Your task to perform on an android device: open app "Chime – Mobile Banking" Image 0: 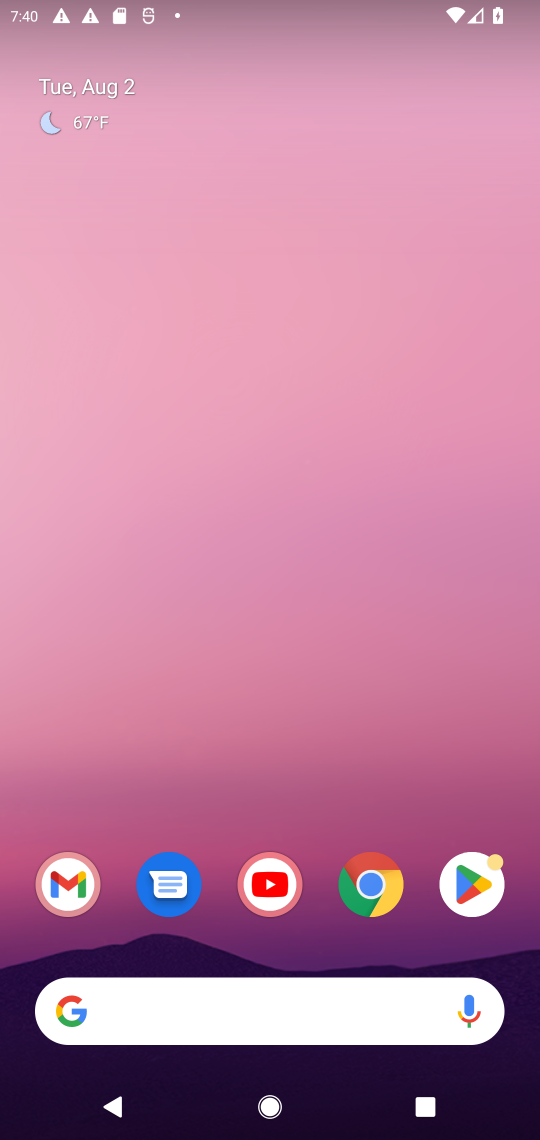
Step 0: press home button
Your task to perform on an android device: open app "Chime – Mobile Banking" Image 1: 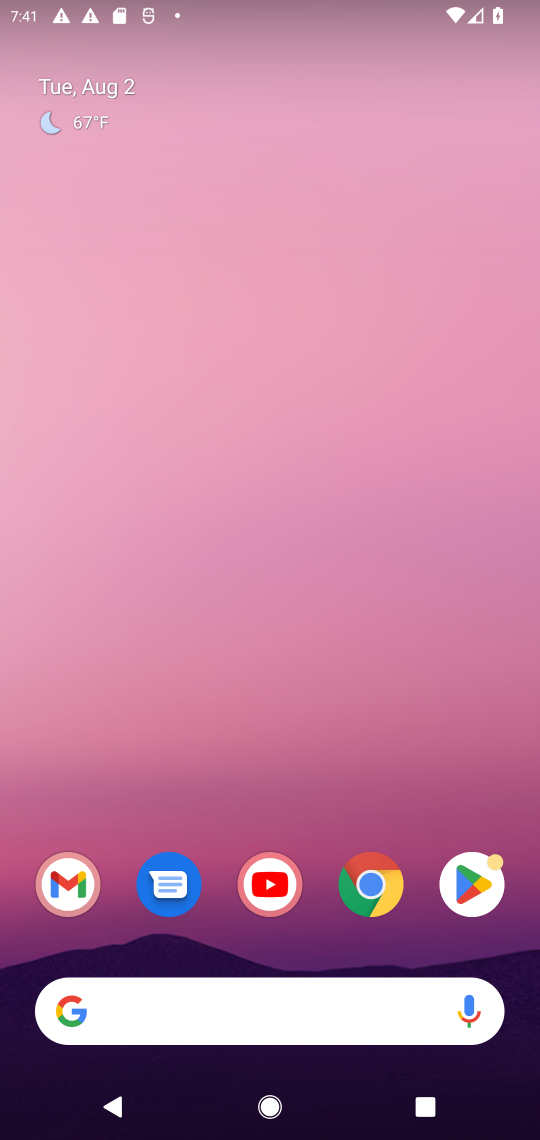
Step 1: click (469, 877)
Your task to perform on an android device: open app "Chime – Mobile Banking" Image 2: 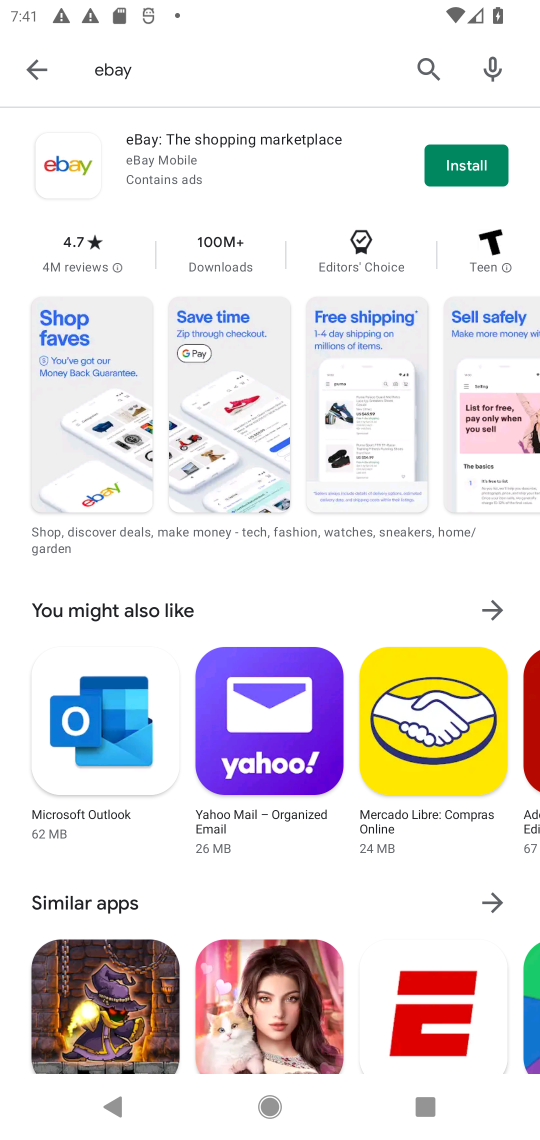
Step 2: click (412, 59)
Your task to perform on an android device: open app "Chime – Mobile Banking" Image 3: 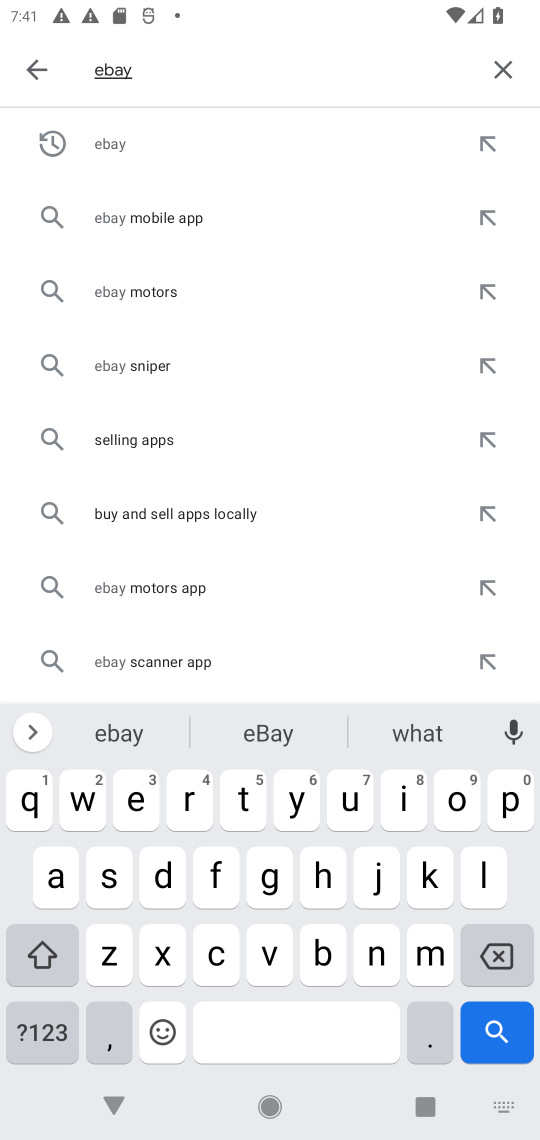
Step 3: click (497, 66)
Your task to perform on an android device: open app "Chime – Mobile Banking" Image 4: 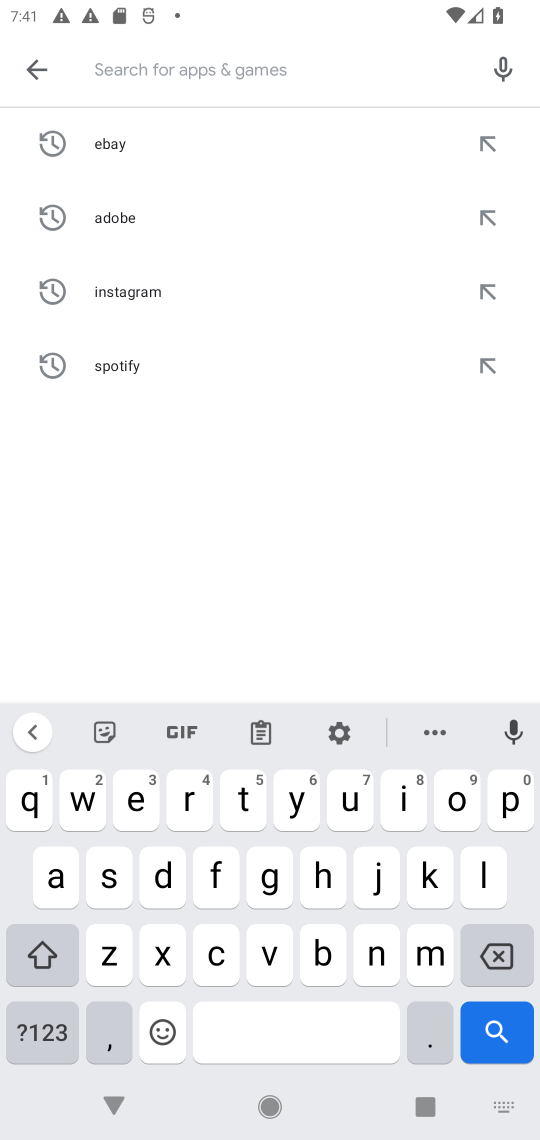
Step 4: click (220, 948)
Your task to perform on an android device: open app "Chime – Mobile Banking" Image 5: 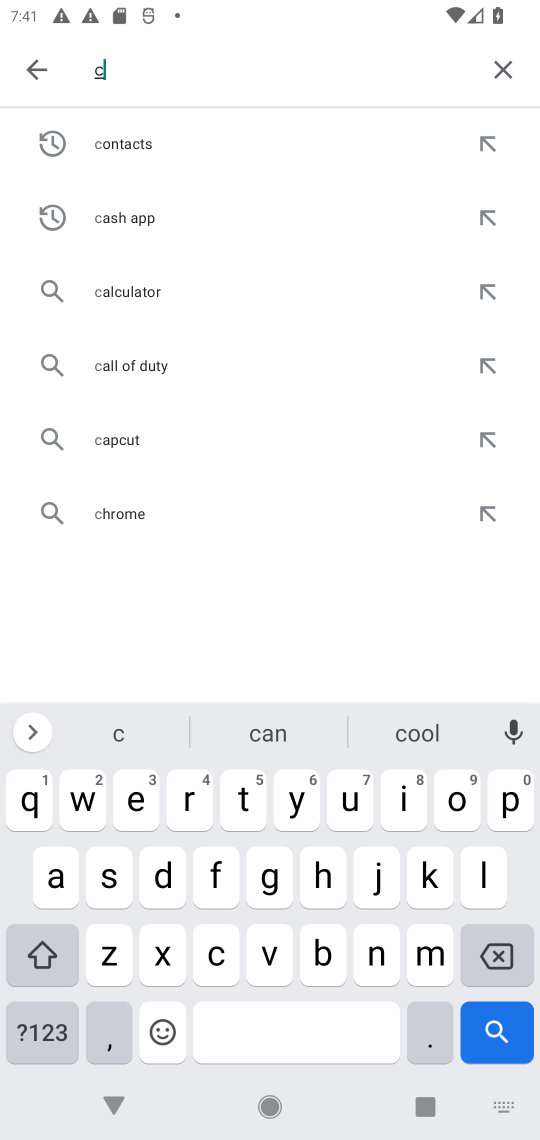
Step 5: click (328, 873)
Your task to perform on an android device: open app "Chime – Mobile Banking" Image 6: 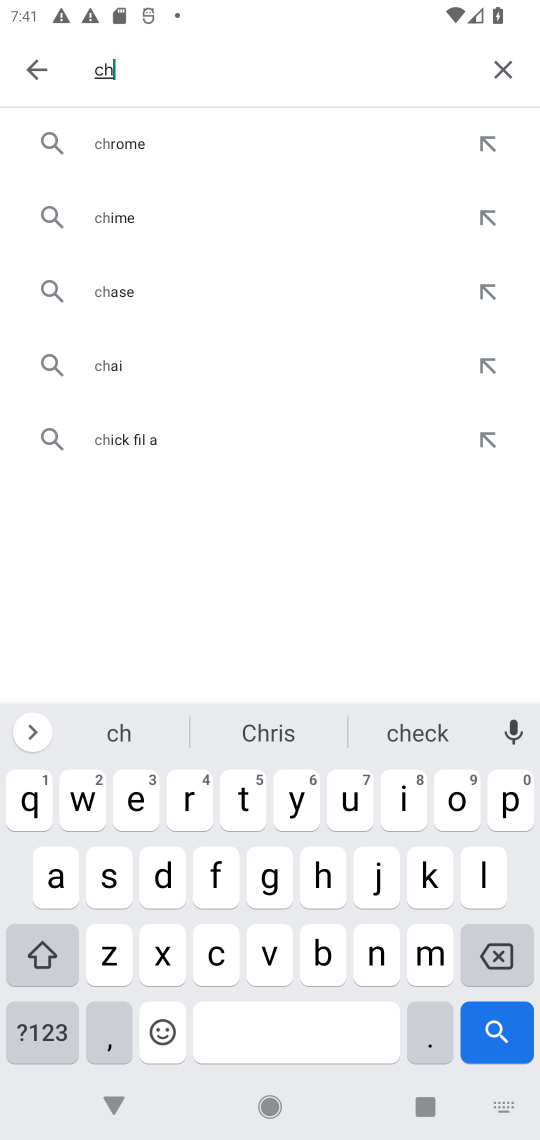
Step 6: click (403, 805)
Your task to perform on an android device: open app "Chime – Mobile Banking" Image 7: 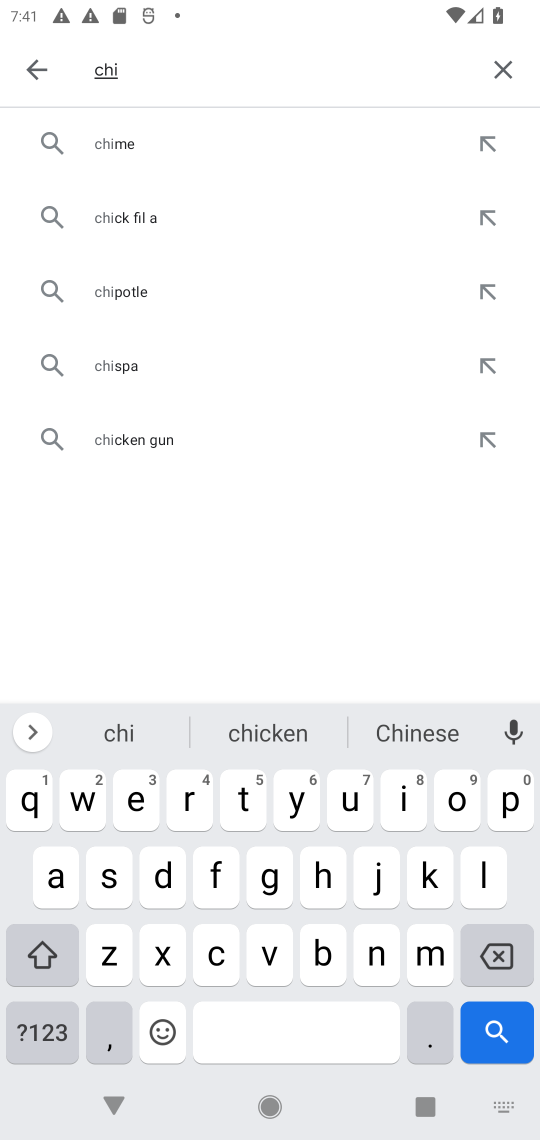
Step 7: click (160, 144)
Your task to perform on an android device: open app "Chime – Mobile Banking" Image 8: 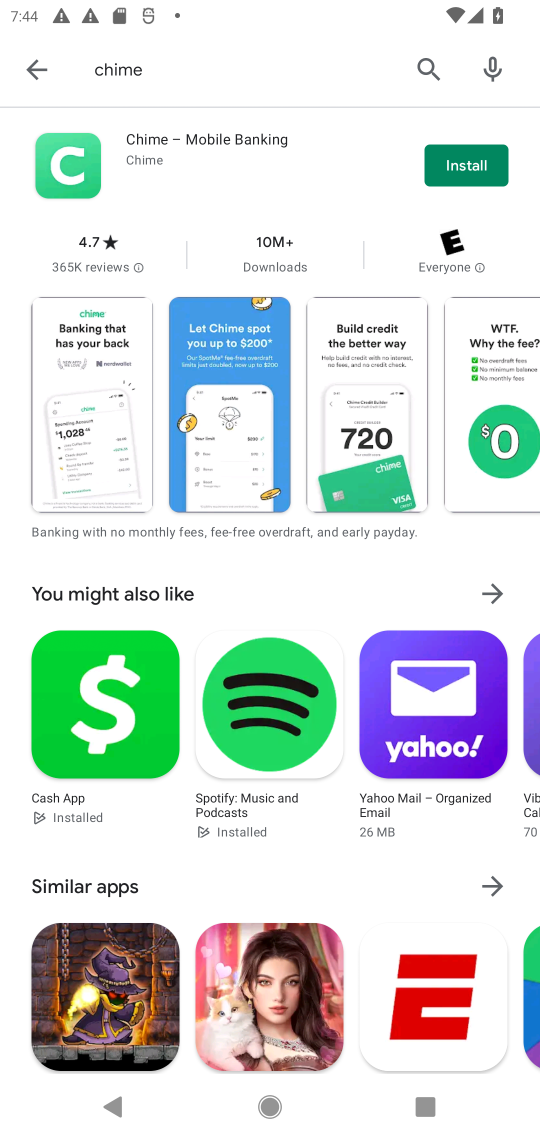
Step 8: task complete